Your task to perform on an android device: check google app version Image 0: 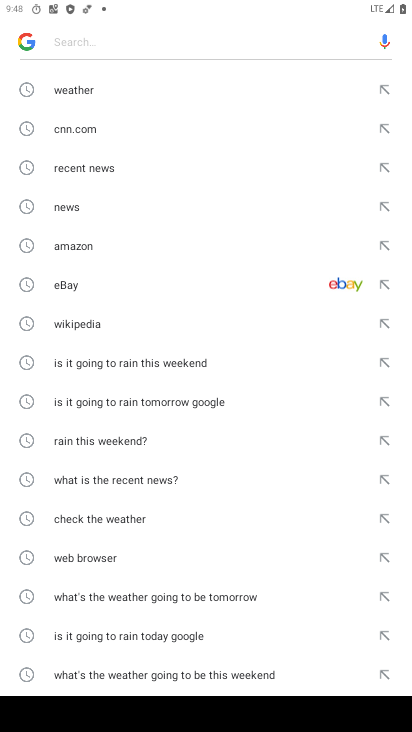
Step 0: press home button
Your task to perform on an android device: check google app version Image 1: 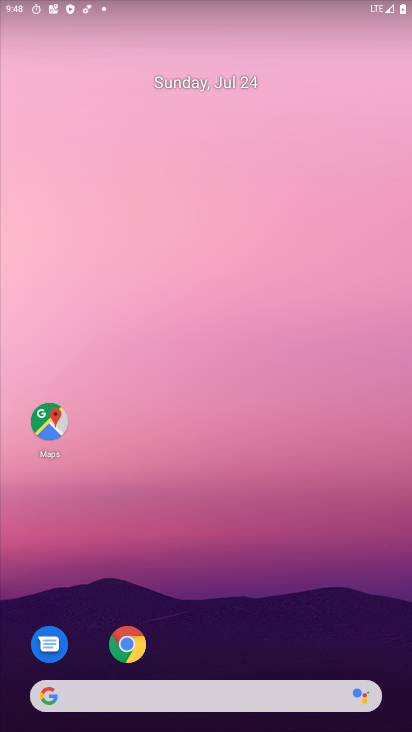
Step 1: drag from (193, 691) to (215, 232)
Your task to perform on an android device: check google app version Image 2: 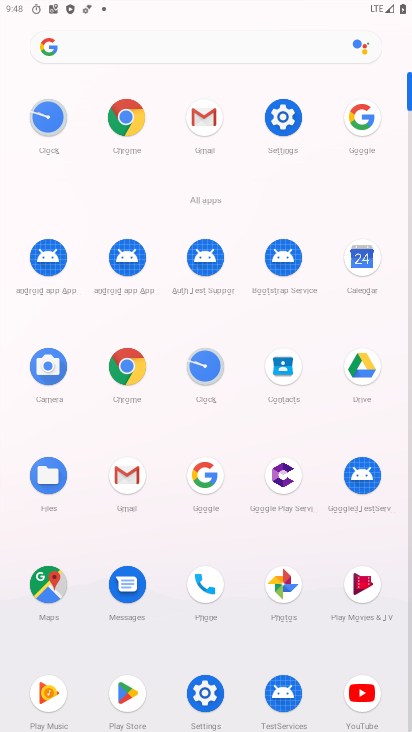
Step 2: click (347, 120)
Your task to perform on an android device: check google app version Image 3: 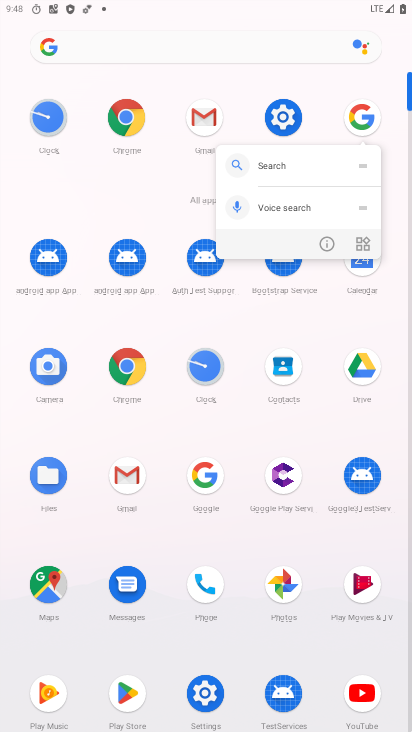
Step 3: click (326, 239)
Your task to perform on an android device: check google app version Image 4: 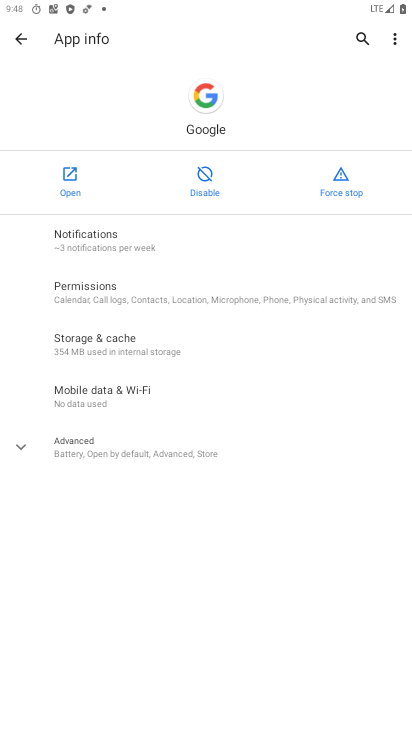
Step 4: click (93, 457)
Your task to perform on an android device: check google app version Image 5: 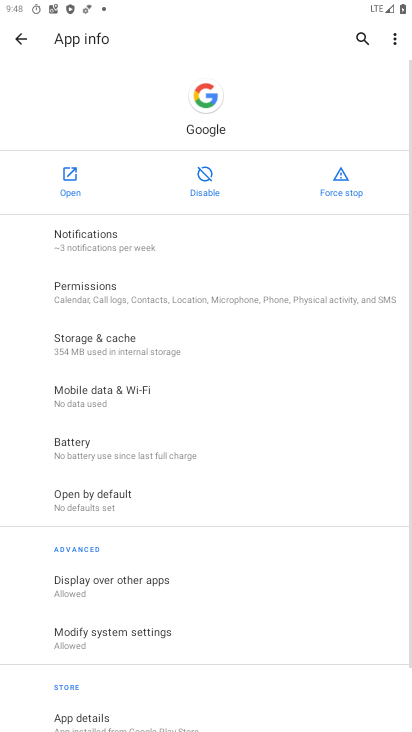
Step 5: task complete